Your task to perform on an android device: Open calendar and show me the first week of next month Image 0: 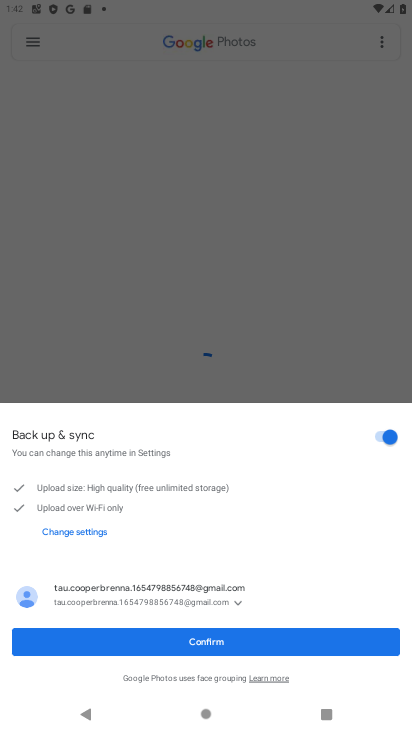
Step 0: press home button
Your task to perform on an android device: Open calendar and show me the first week of next month Image 1: 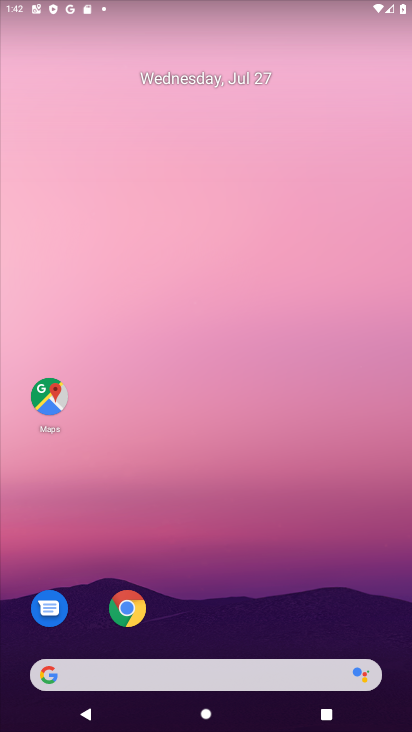
Step 1: drag from (40, 684) to (288, 77)
Your task to perform on an android device: Open calendar and show me the first week of next month Image 2: 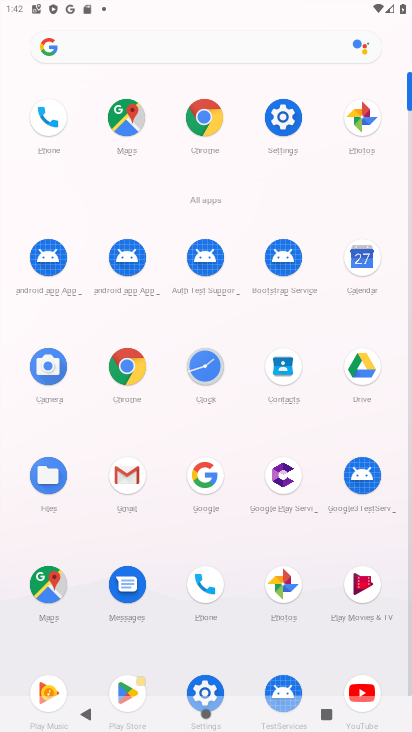
Step 2: click (364, 269)
Your task to perform on an android device: Open calendar and show me the first week of next month Image 3: 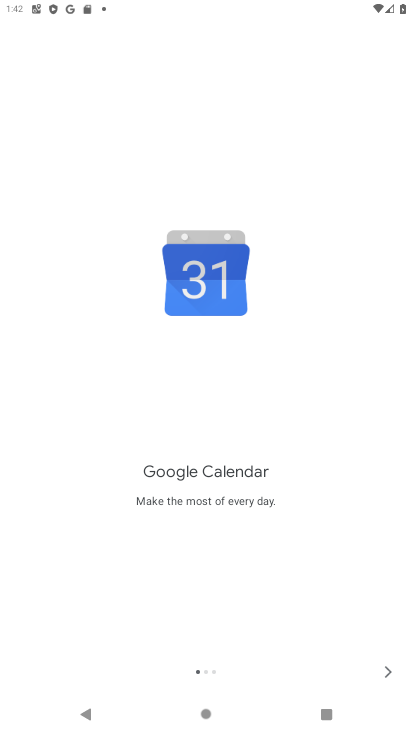
Step 3: click (392, 678)
Your task to perform on an android device: Open calendar and show me the first week of next month Image 4: 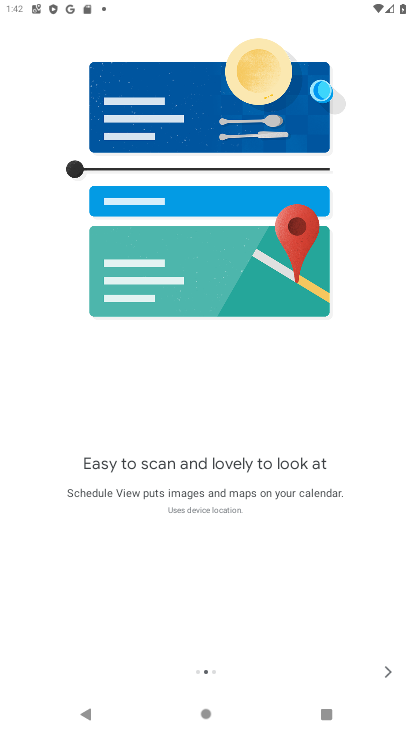
Step 4: click (389, 670)
Your task to perform on an android device: Open calendar and show me the first week of next month Image 5: 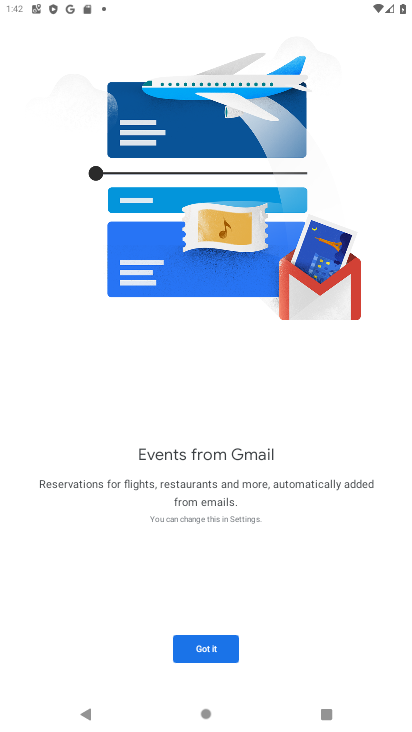
Step 5: click (221, 652)
Your task to perform on an android device: Open calendar and show me the first week of next month Image 6: 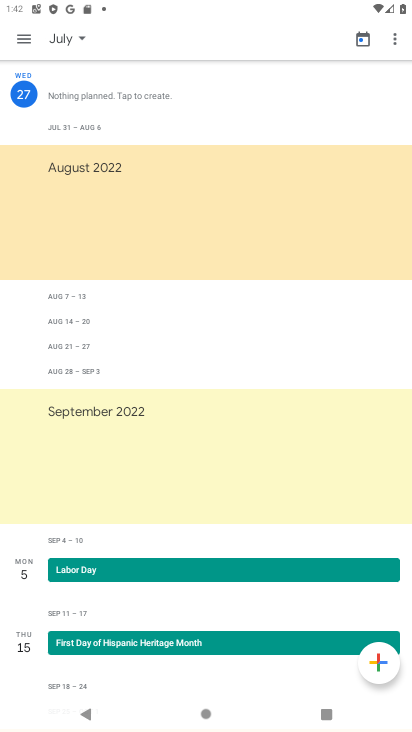
Step 6: click (84, 35)
Your task to perform on an android device: Open calendar and show me the first week of next month Image 7: 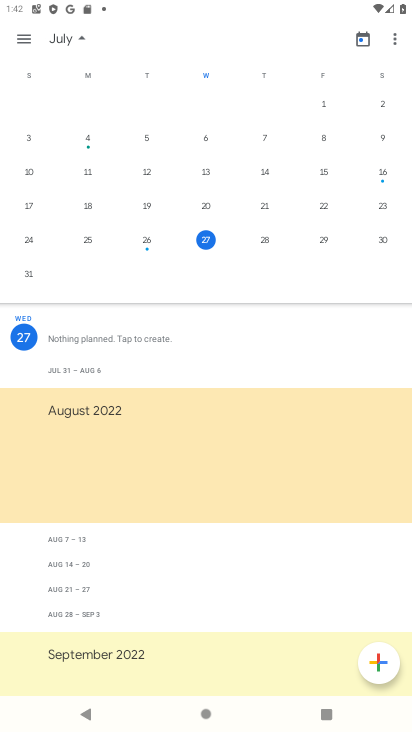
Step 7: task complete